Your task to perform on an android device: Open sound settings Image 0: 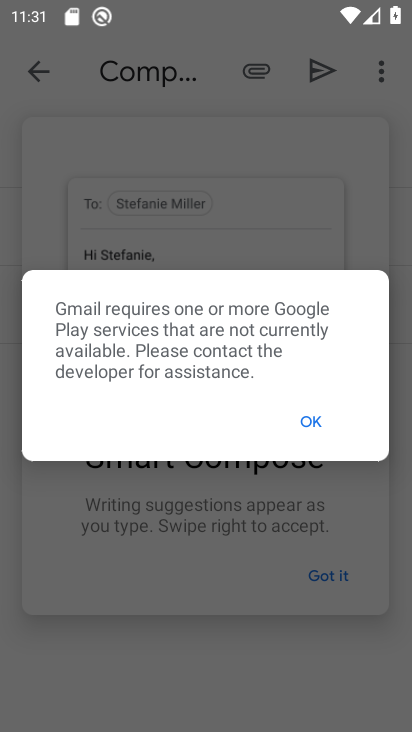
Step 0: press home button
Your task to perform on an android device: Open sound settings Image 1: 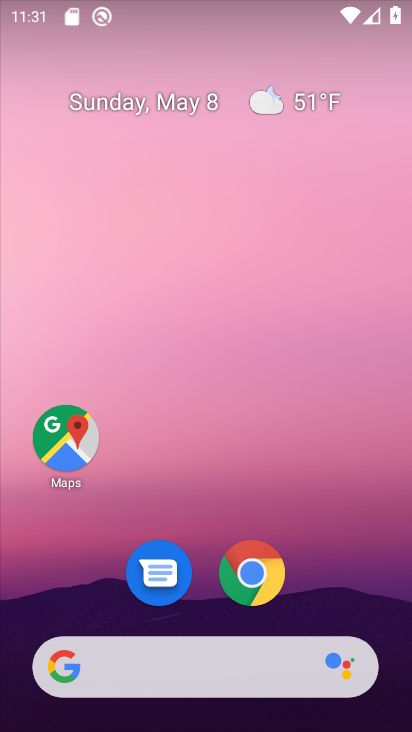
Step 1: drag from (192, 639) to (176, 192)
Your task to perform on an android device: Open sound settings Image 2: 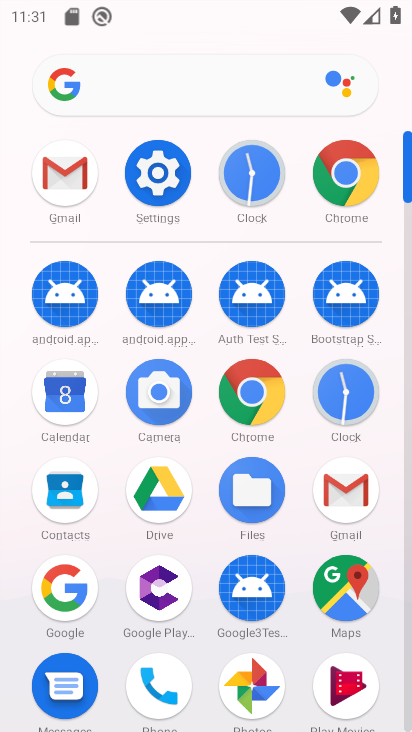
Step 2: click (154, 180)
Your task to perform on an android device: Open sound settings Image 3: 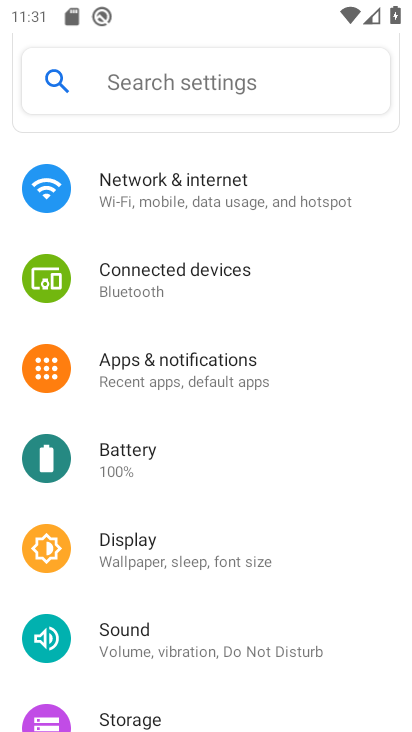
Step 3: click (128, 643)
Your task to perform on an android device: Open sound settings Image 4: 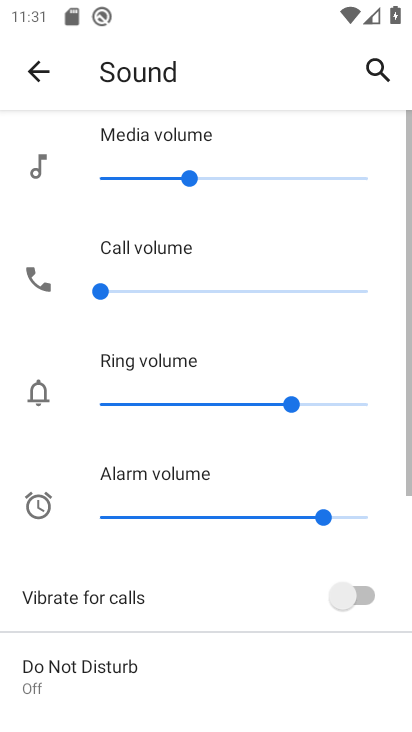
Step 4: drag from (144, 682) to (125, 295)
Your task to perform on an android device: Open sound settings Image 5: 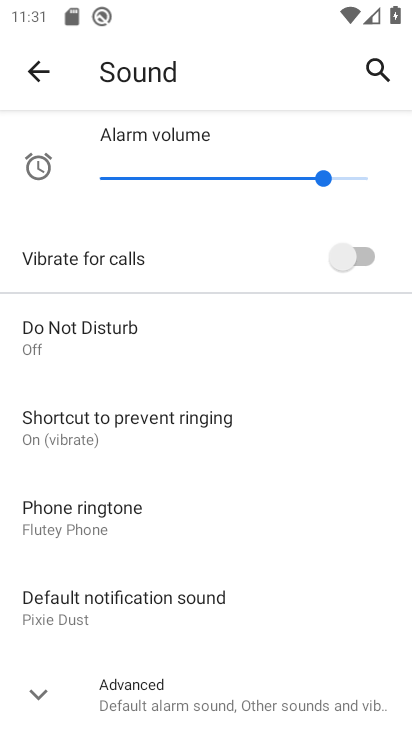
Step 5: click (145, 698)
Your task to perform on an android device: Open sound settings Image 6: 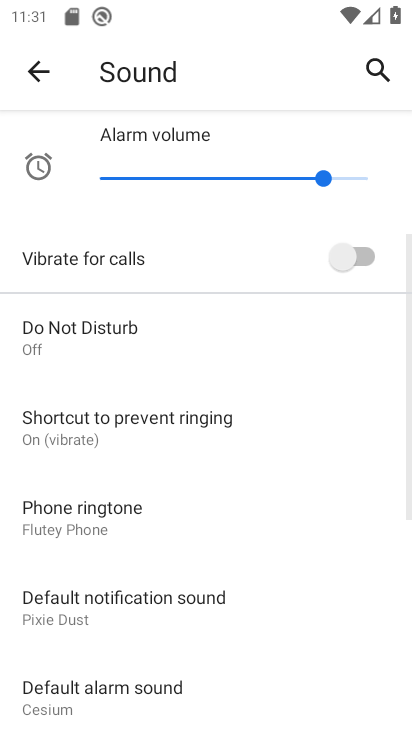
Step 6: task complete